Your task to perform on an android device: Open battery settings Image 0: 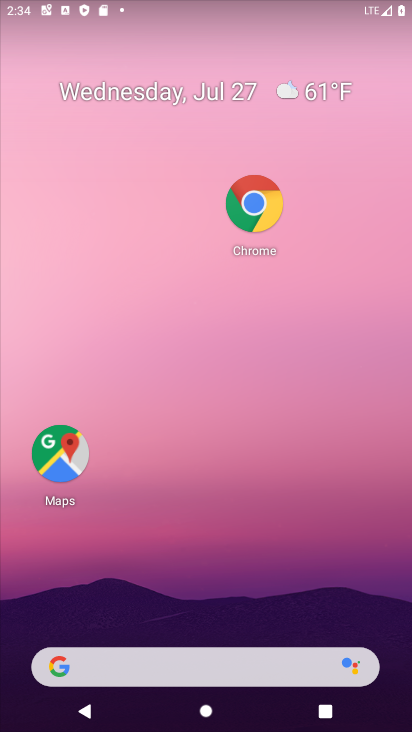
Step 0: drag from (229, 613) to (209, 196)
Your task to perform on an android device: Open battery settings Image 1: 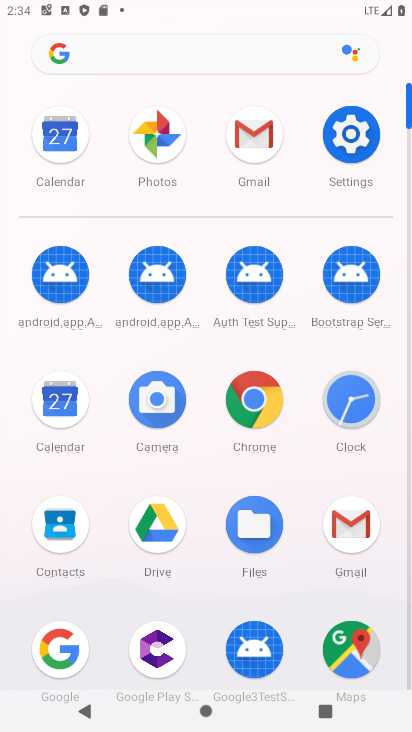
Step 1: click (352, 127)
Your task to perform on an android device: Open battery settings Image 2: 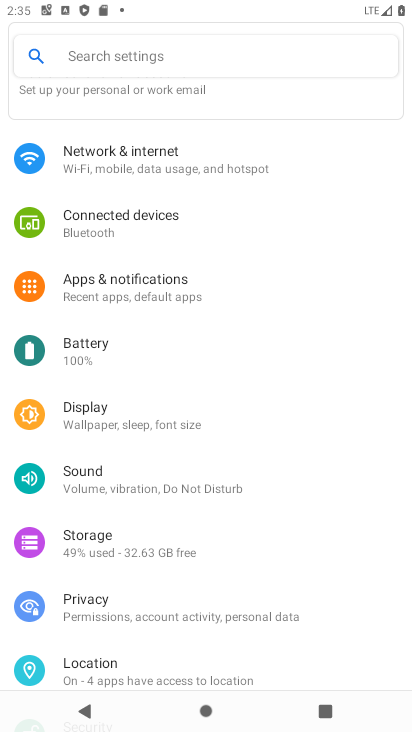
Step 2: click (90, 337)
Your task to perform on an android device: Open battery settings Image 3: 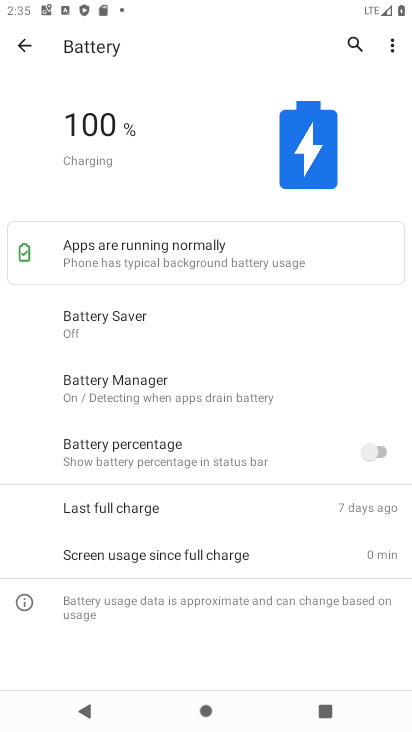
Step 3: task complete